Your task to perform on an android device: turn on wifi Image 0: 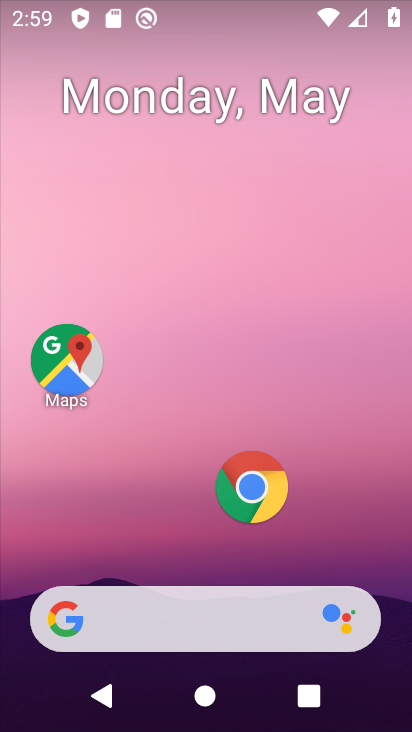
Step 0: drag from (148, 454) to (132, 7)
Your task to perform on an android device: turn on wifi Image 1: 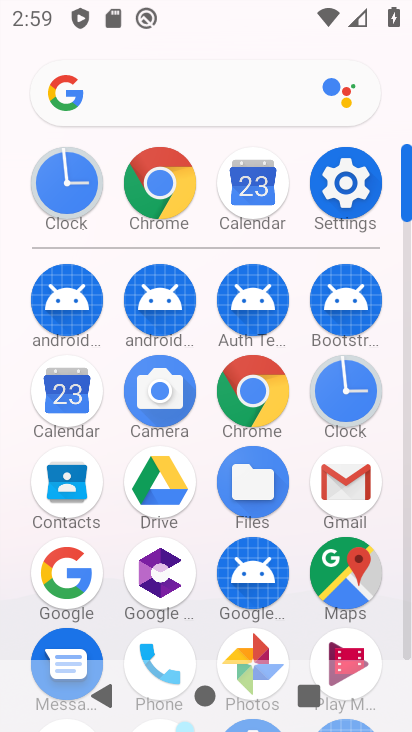
Step 1: click (335, 183)
Your task to perform on an android device: turn on wifi Image 2: 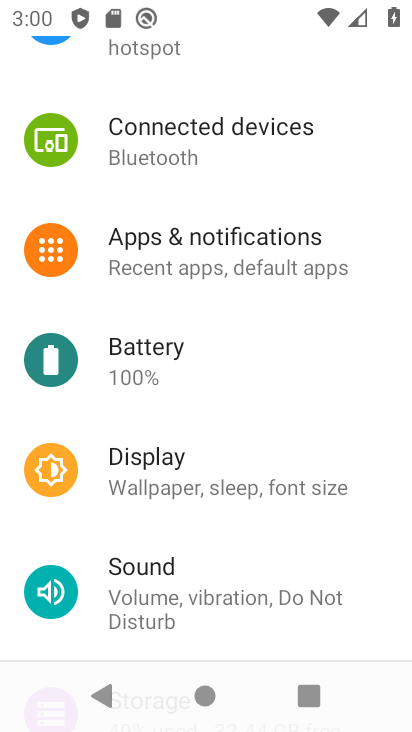
Step 2: drag from (164, 355) to (188, 593)
Your task to perform on an android device: turn on wifi Image 3: 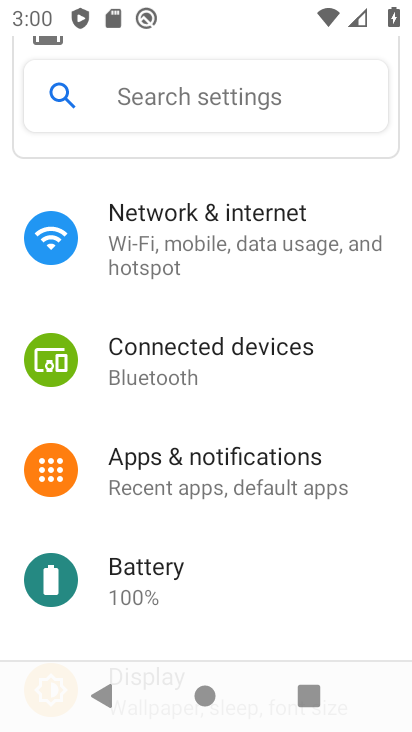
Step 3: click (187, 249)
Your task to perform on an android device: turn on wifi Image 4: 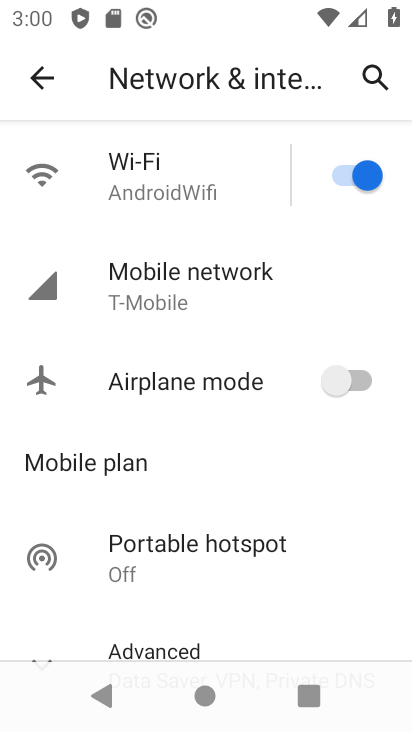
Step 4: task complete